Your task to perform on an android device: Open Maps and search for coffee Image 0: 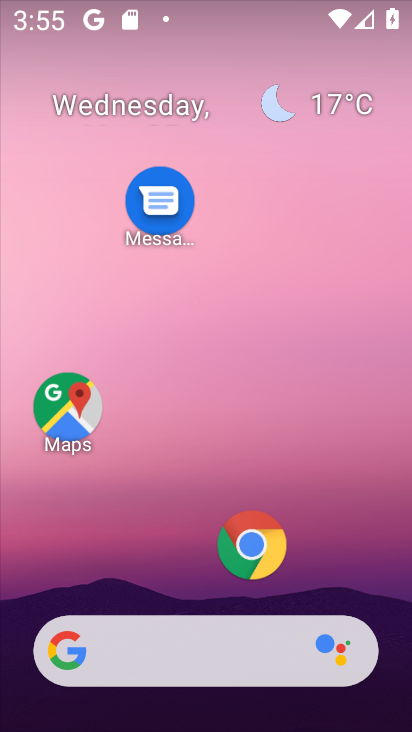
Step 0: click (49, 413)
Your task to perform on an android device: Open Maps and search for coffee Image 1: 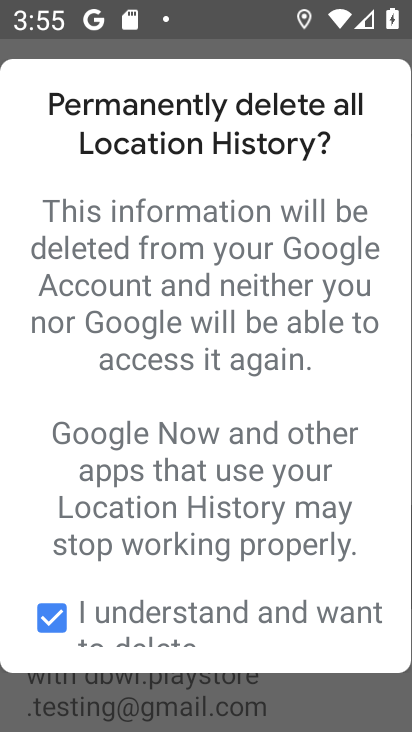
Step 1: press back button
Your task to perform on an android device: Open Maps and search for coffee Image 2: 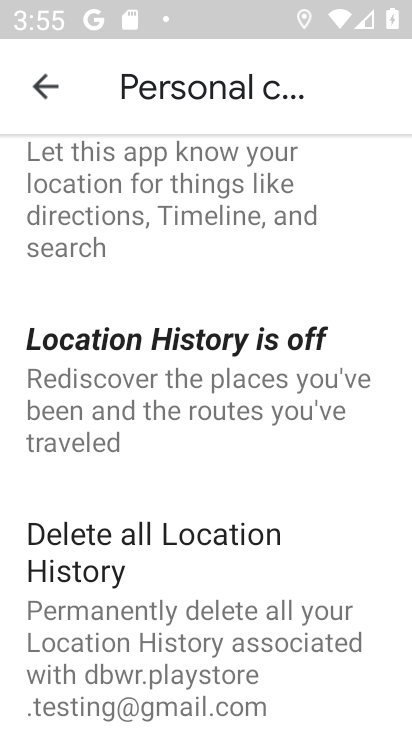
Step 2: press back button
Your task to perform on an android device: Open Maps and search for coffee Image 3: 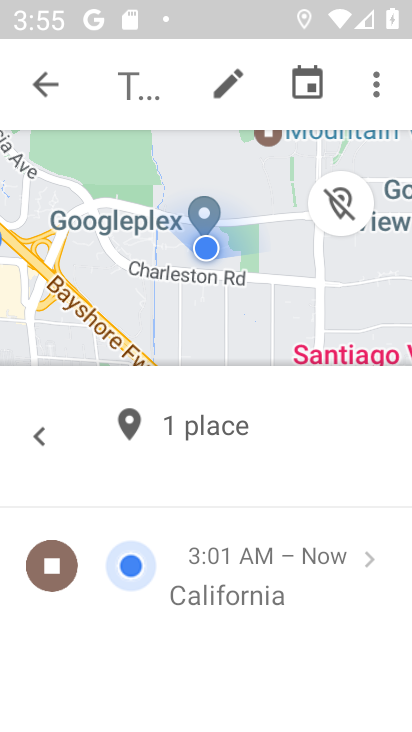
Step 3: press back button
Your task to perform on an android device: Open Maps and search for coffee Image 4: 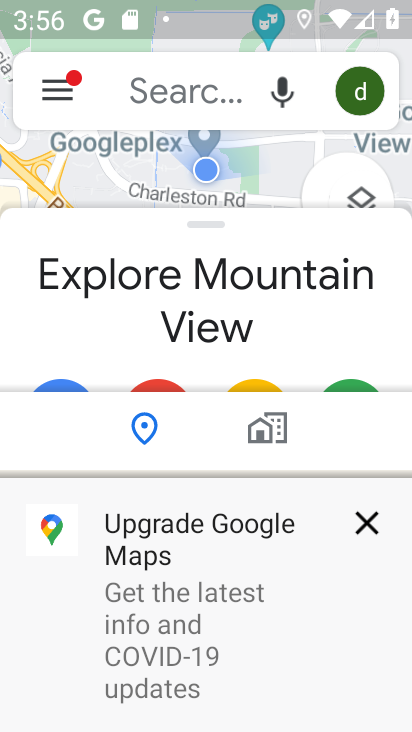
Step 4: click (164, 92)
Your task to perform on an android device: Open Maps and search for coffee Image 5: 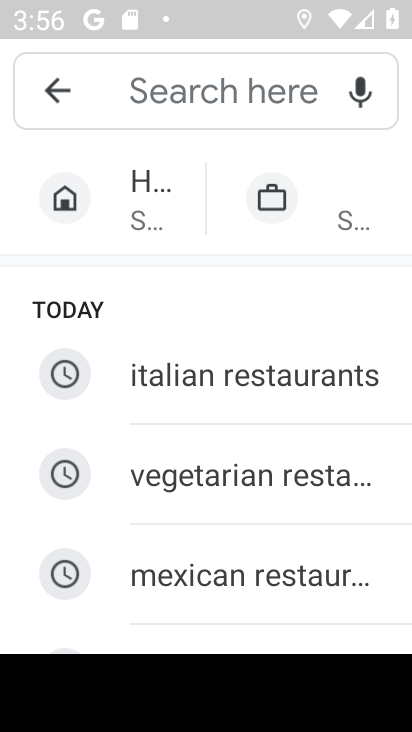
Step 5: drag from (298, 611) to (248, 198)
Your task to perform on an android device: Open Maps and search for coffee Image 6: 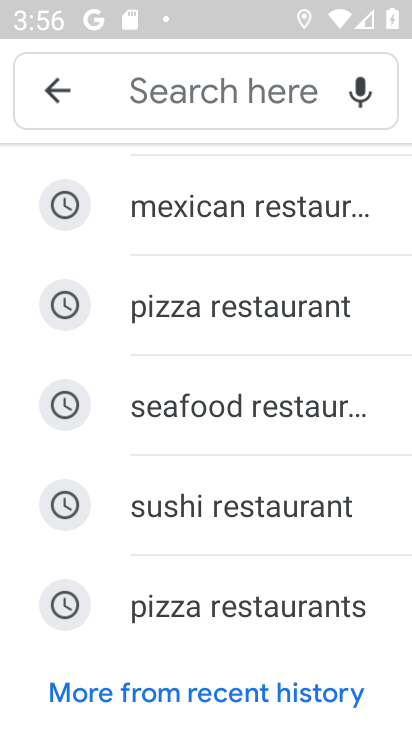
Step 6: drag from (215, 619) to (187, 139)
Your task to perform on an android device: Open Maps and search for coffee Image 7: 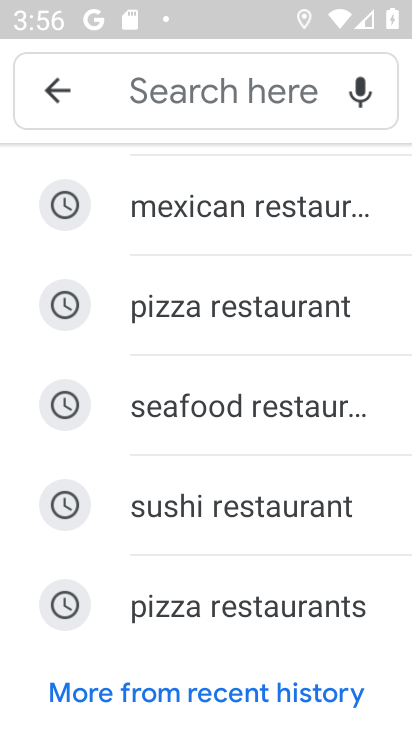
Step 7: click (237, 83)
Your task to perform on an android device: Open Maps and search for coffee Image 8: 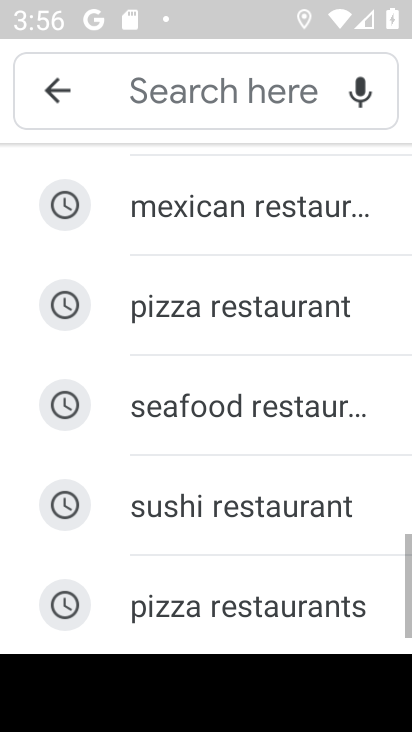
Step 8: click (239, 82)
Your task to perform on an android device: Open Maps and search for coffee Image 9: 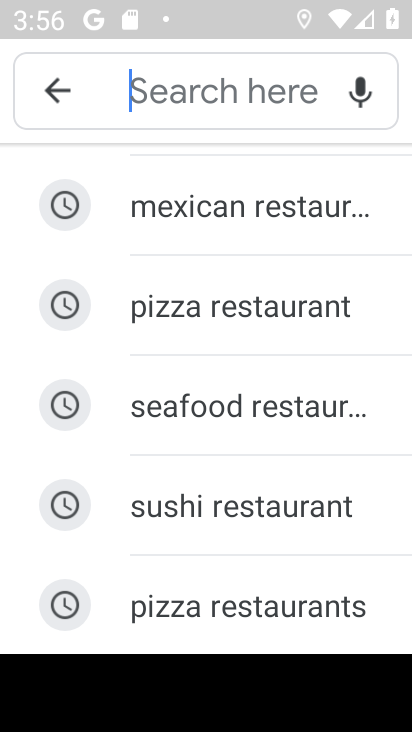
Step 9: type "coffee"
Your task to perform on an android device: Open Maps and search for coffee Image 10: 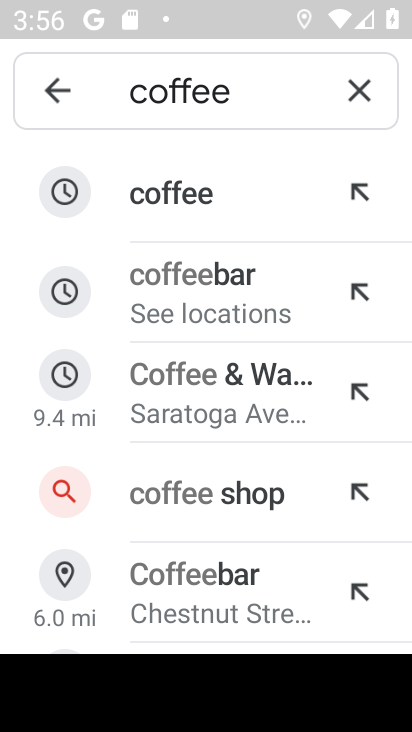
Step 10: click (228, 208)
Your task to perform on an android device: Open Maps and search for coffee Image 11: 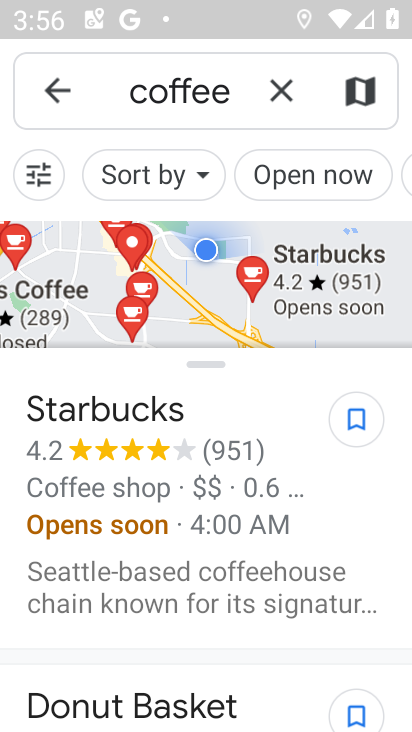
Step 11: task complete